Your task to perform on an android device: Do I have any events tomorrow? Image 0: 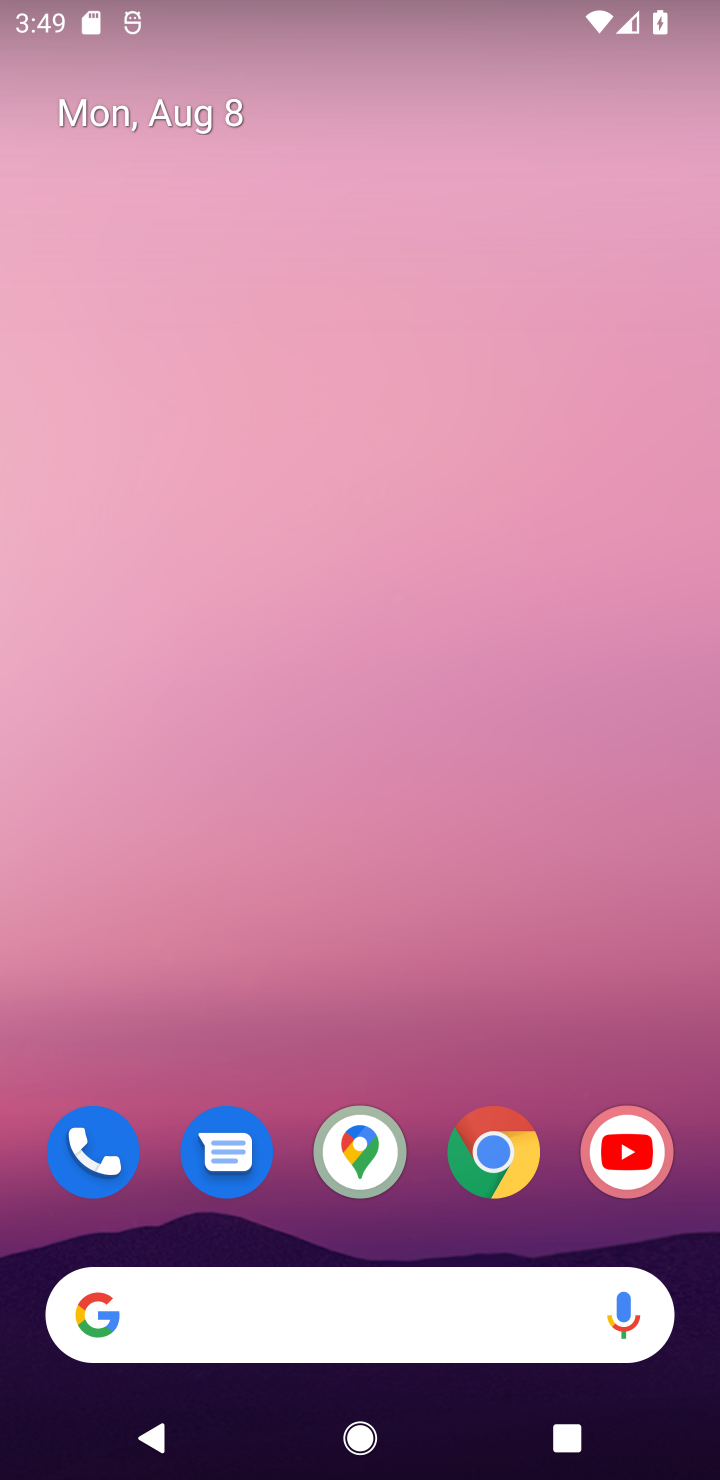
Step 0: drag from (304, 1223) to (467, 54)
Your task to perform on an android device: Do I have any events tomorrow? Image 1: 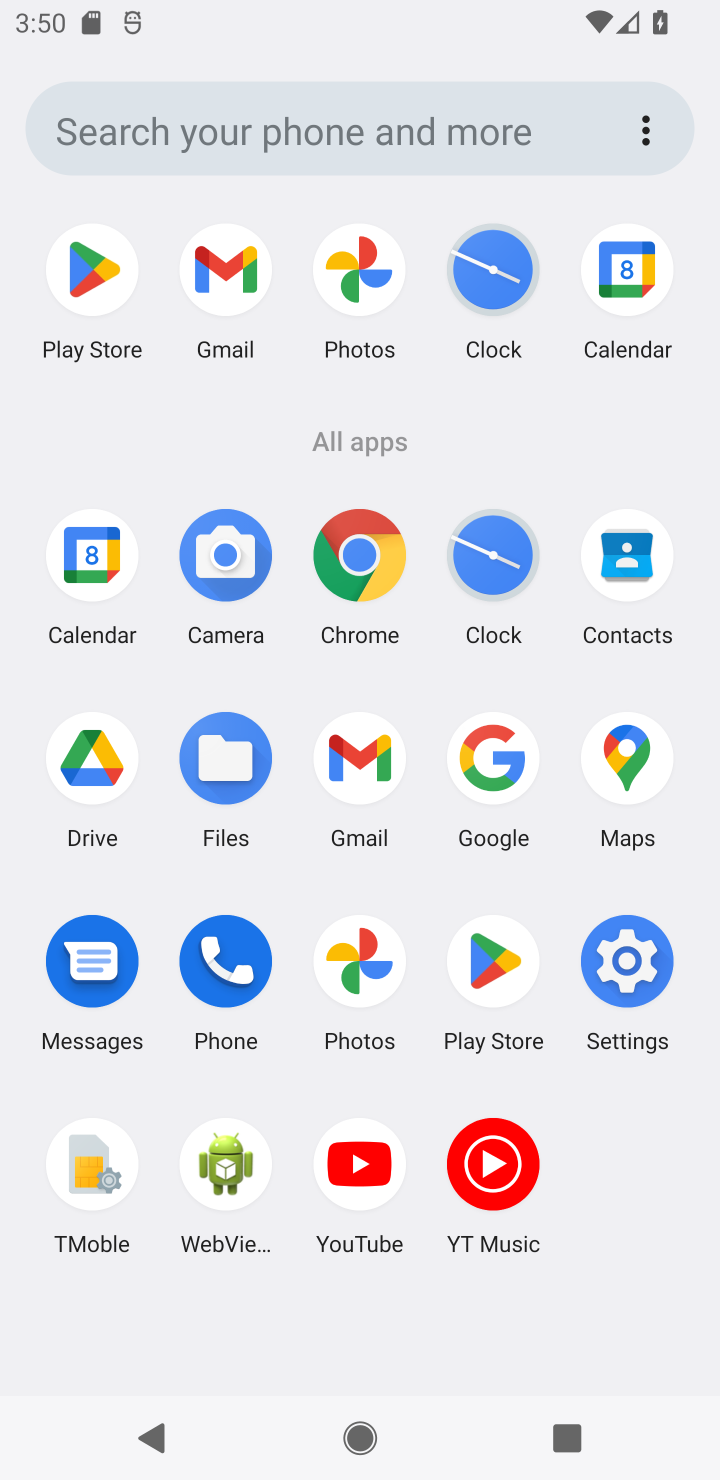
Step 1: click (640, 257)
Your task to perform on an android device: Do I have any events tomorrow? Image 2: 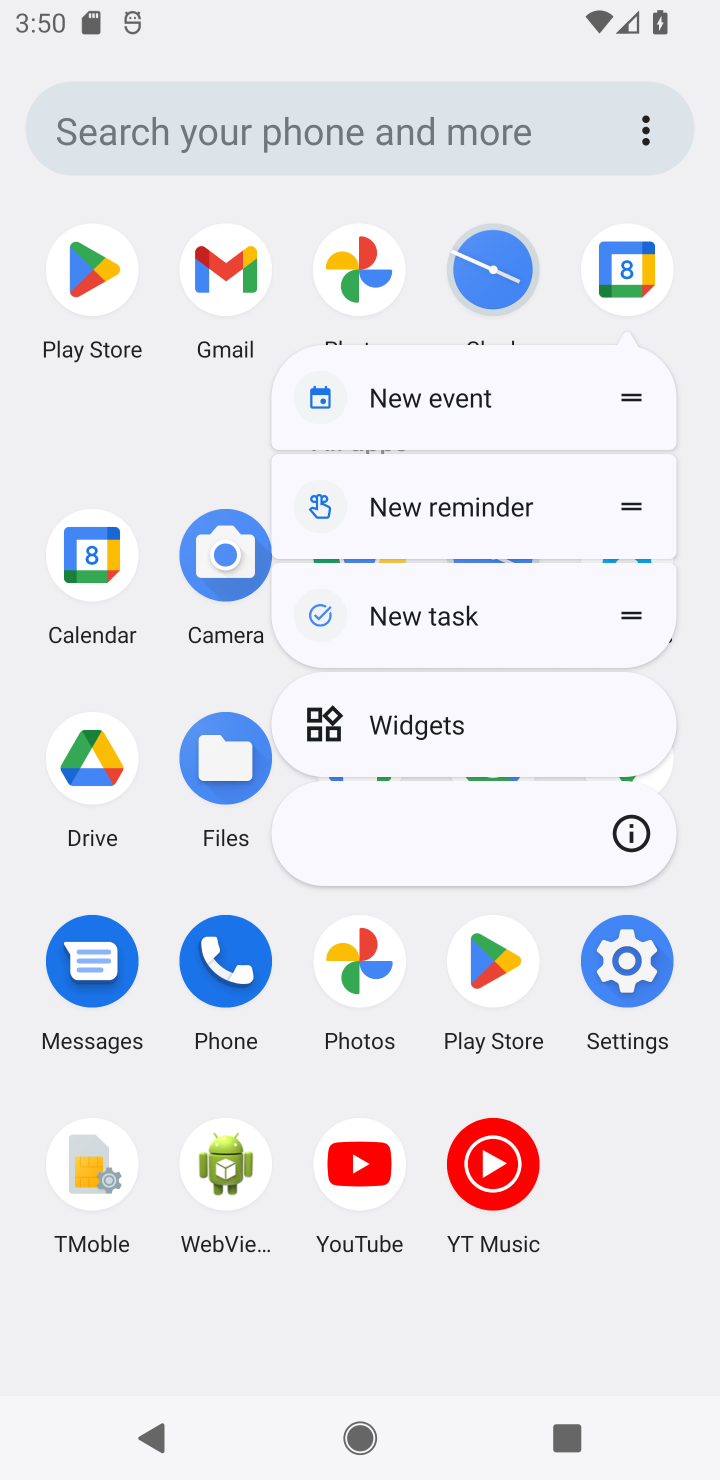
Step 2: click (626, 265)
Your task to perform on an android device: Do I have any events tomorrow? Image 3: 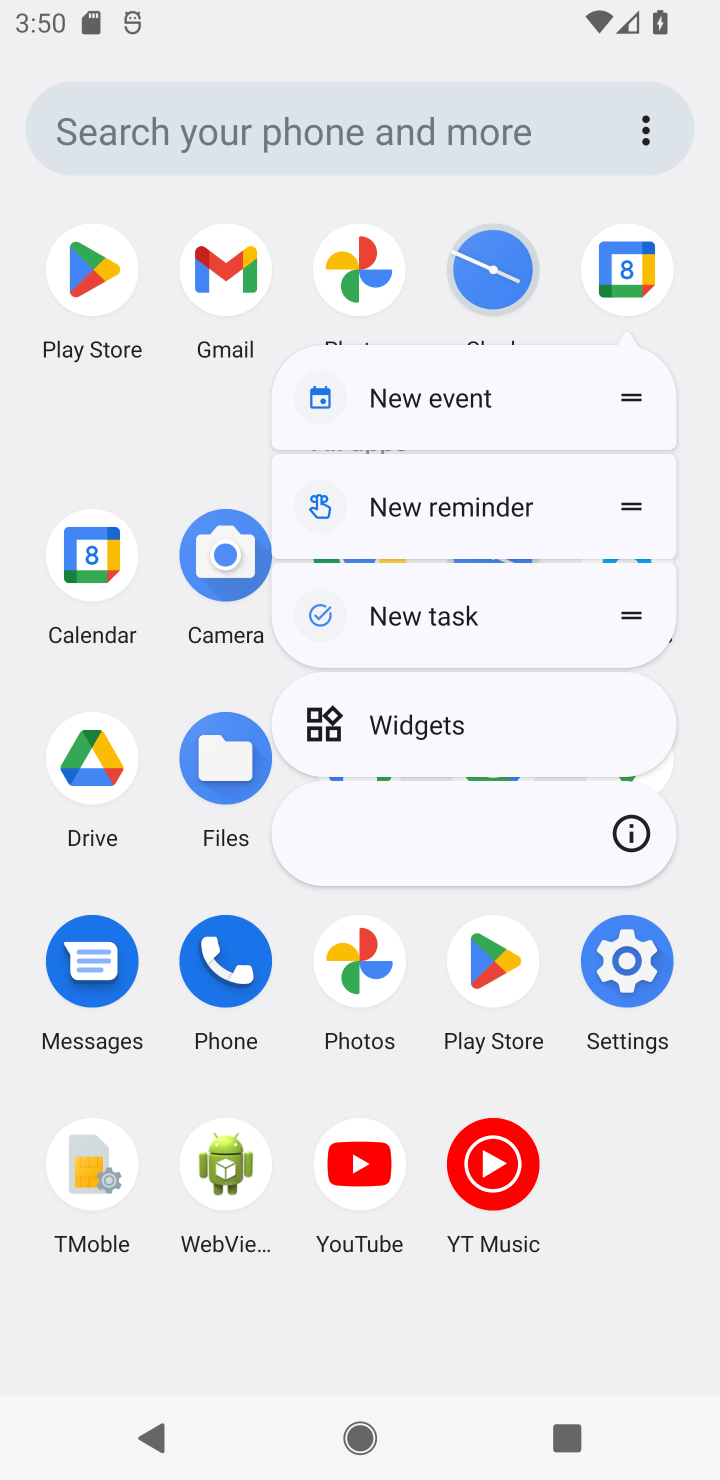
Step 3: click (626, 265)
Your task to perform on an android device: Do I have any events tomorrow? Image 4: 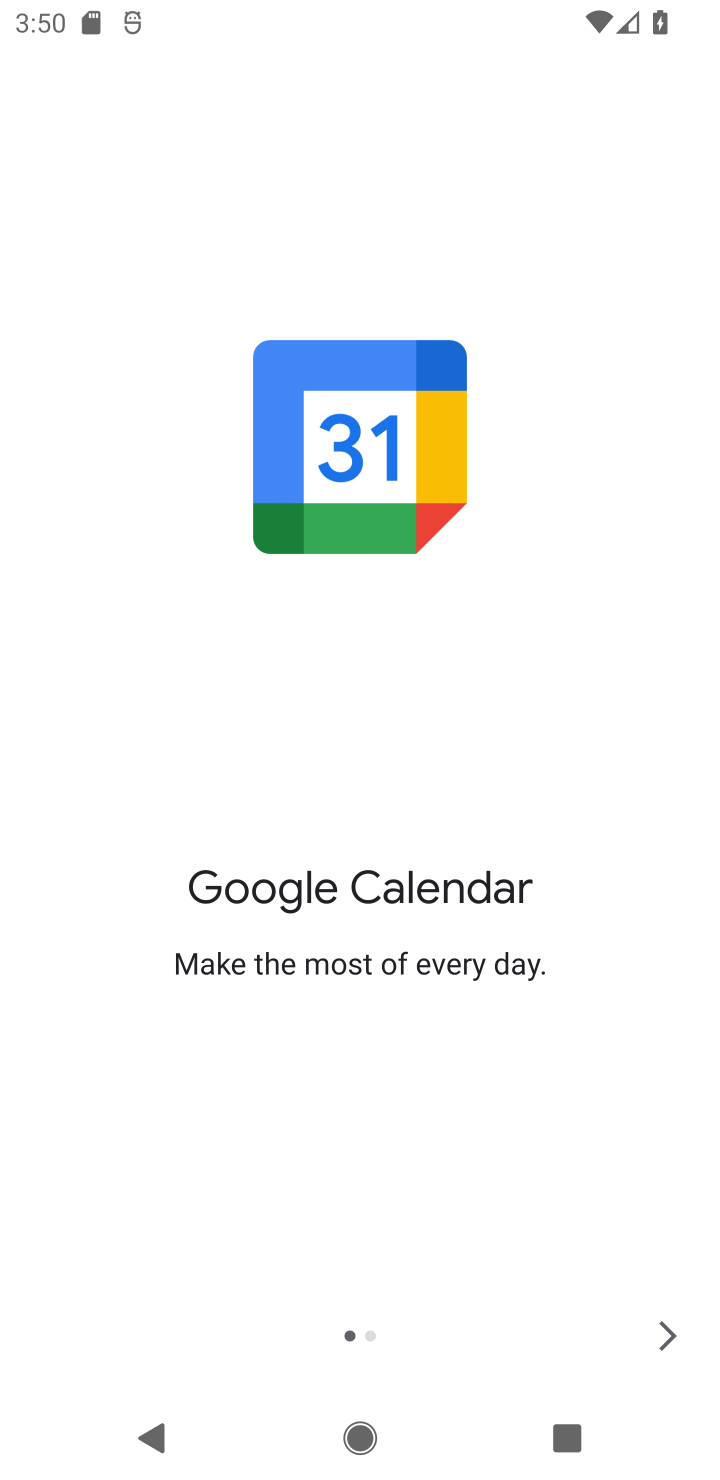
Step 4: click (645, 1329)
Your task to perform on an android device: Do I have any events tomorrow? Image 5: 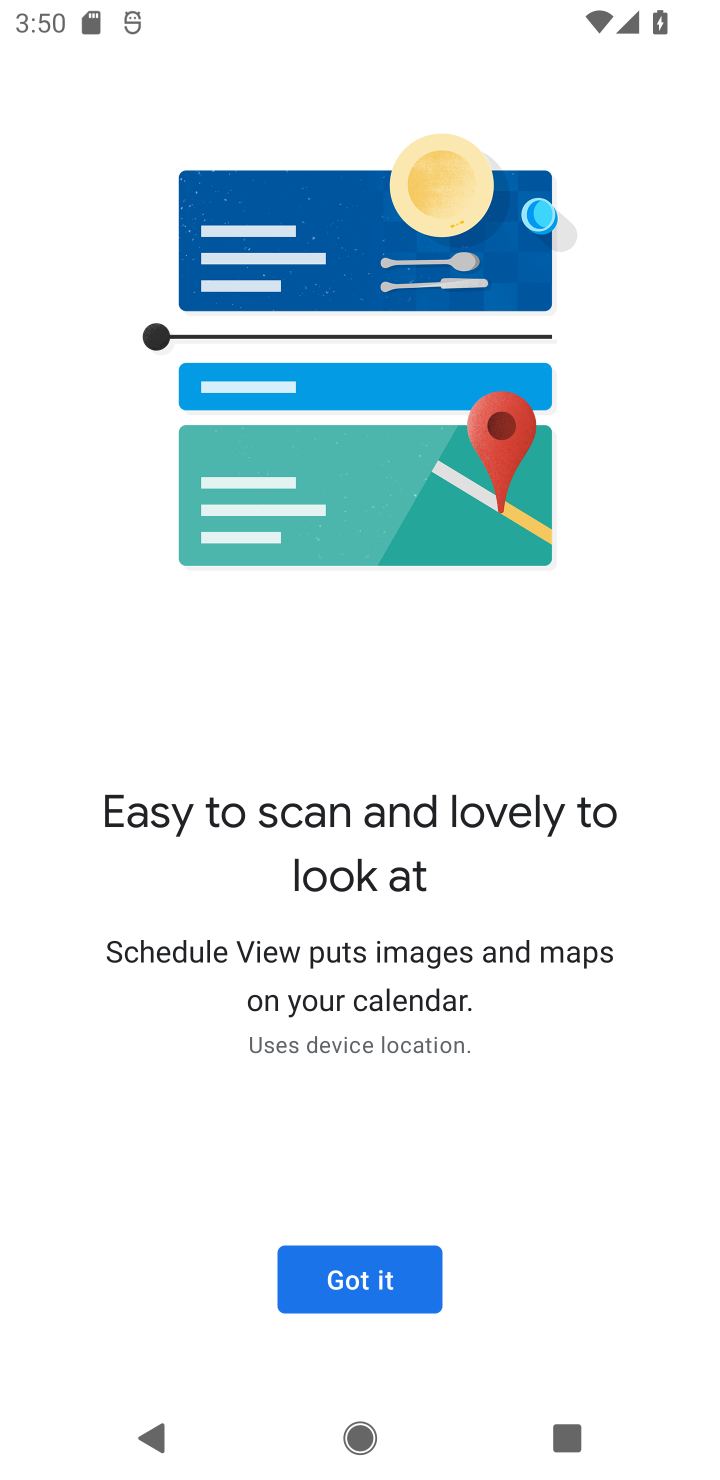
Step 5: click (367, 1268)
Your task to perform on an android device: Do I have any events tomorrow? Image 6: 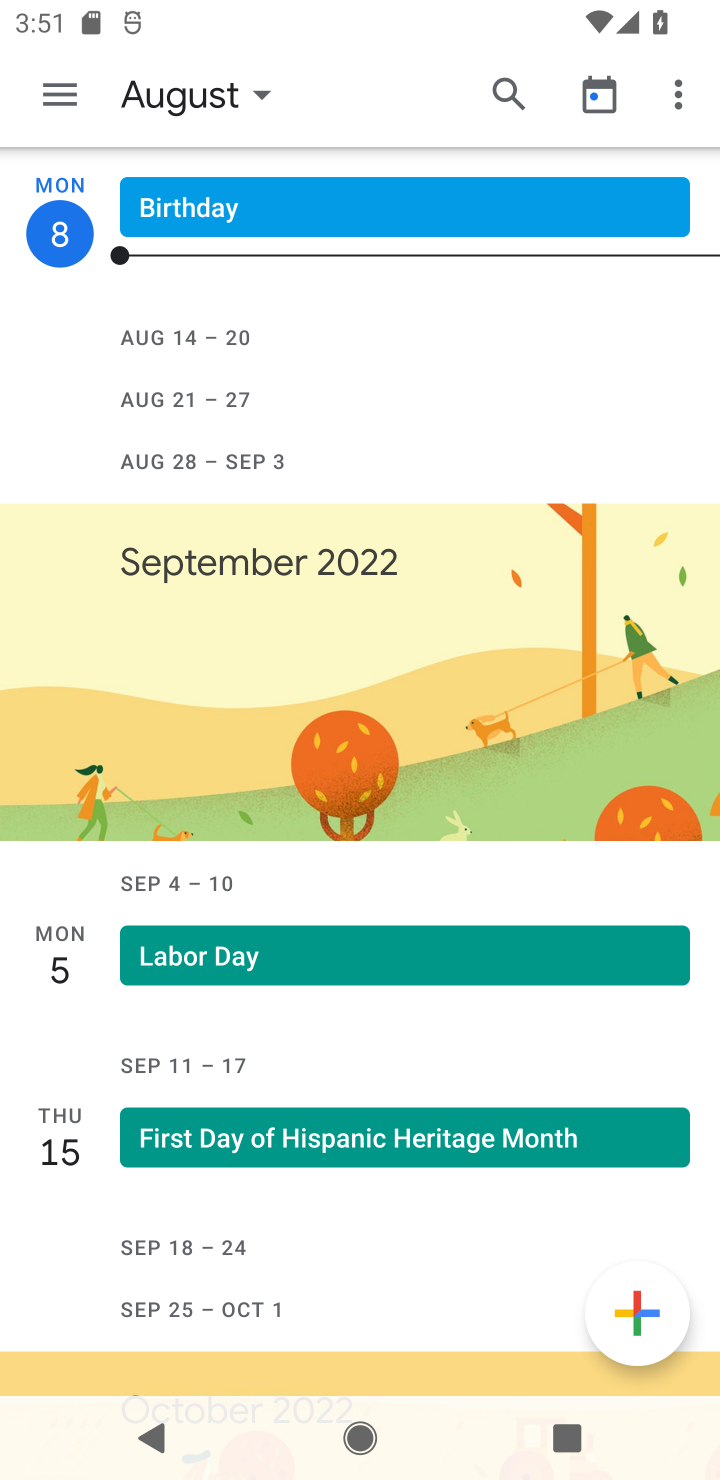
Step 6: task complete